Your task to perform on an android device: Show me popular videos on Youtube Image 0: 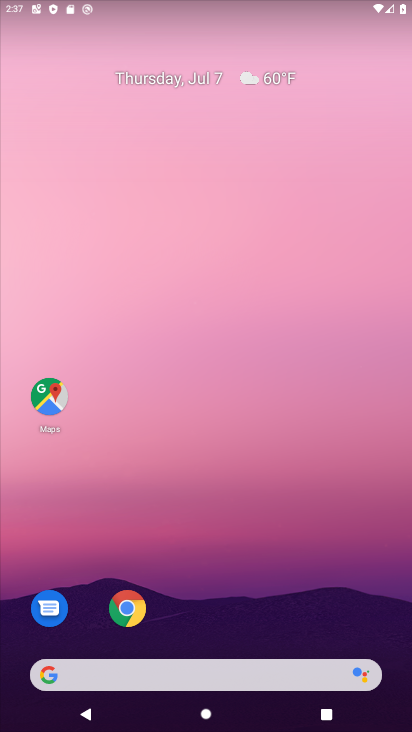
Step 0: press home button
Your task to perform on an android device: Show me popular videos on Youtube Image 1: 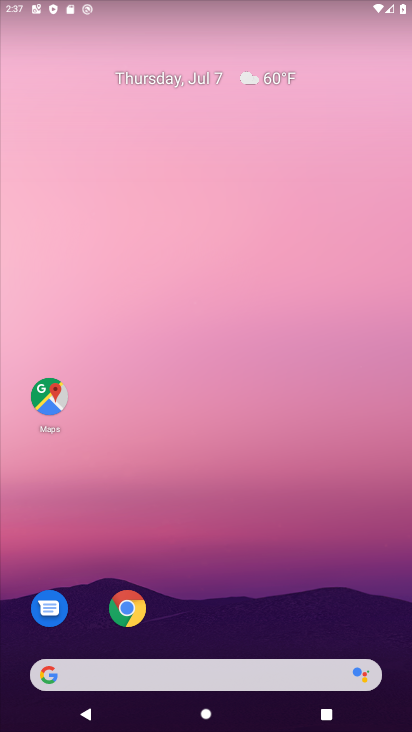
Step 1: drag from (226, 637) to (248, 83)
Your task to perform on an android device: Show me popular videos on Youtube Image 2: 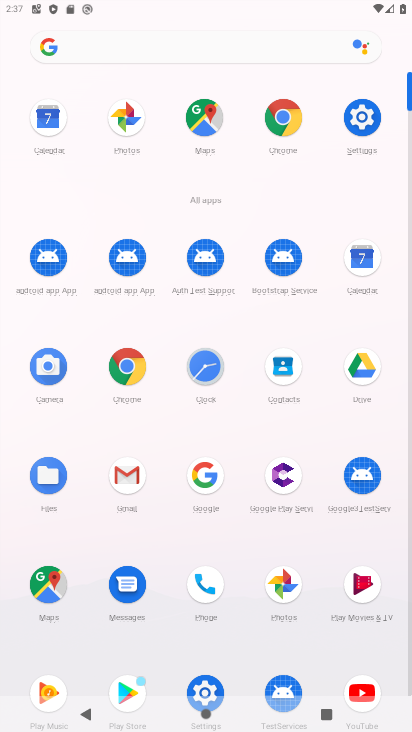
Step 2: click (357, 686)
Your task to perform on an android device: Show me popular videos on Youtube Image 3: 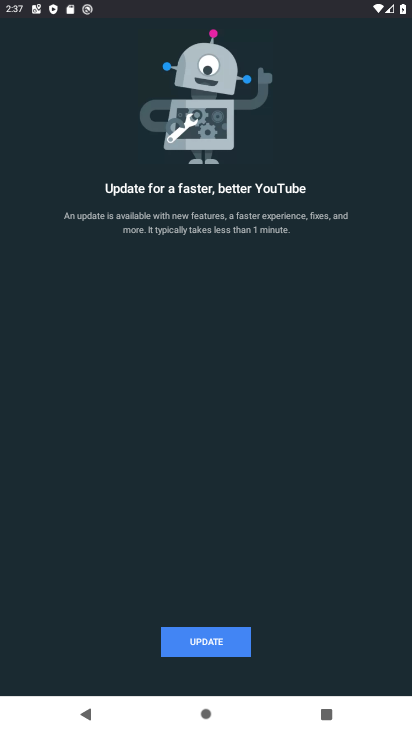
Step 3: click (206, 639)
Your task to perform on an android device: Show me popular videos on Youtube Image 4: 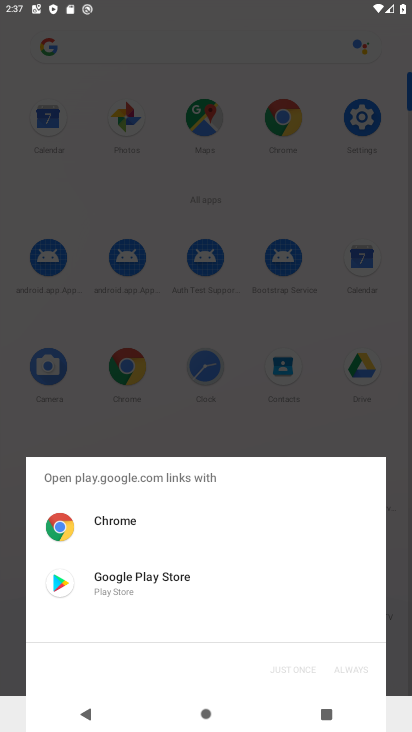
Step 4: click (136, 579)
Your task to perform on an android device: Show me popular videos on Youtube Image 5: 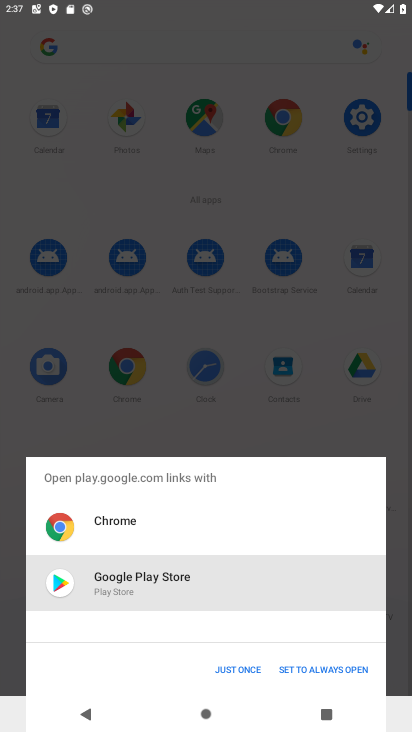
Step 5: click (247, 668)
Your task to perform on an android device: Show me popular videos on Youtube Image 6: 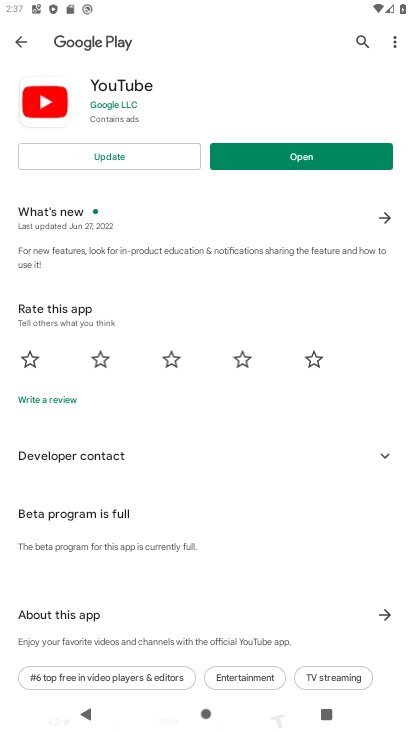
Step 6: click (117, 161)
Your task to perform on an android device: Show me popular videos on Youtube Image 7: 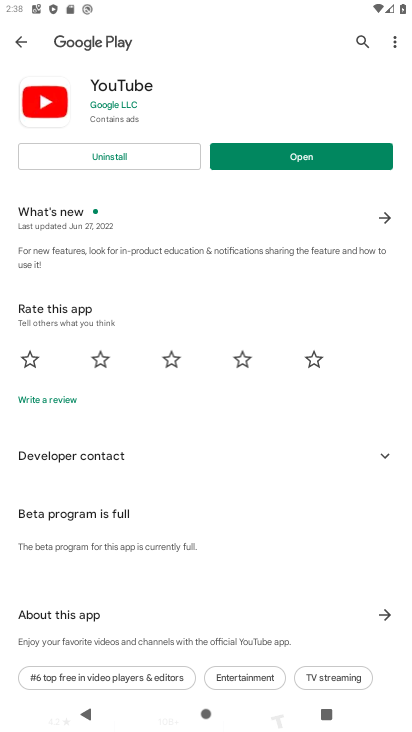
Step 7: click (291, 161)
Your task to perform on an android device: Show me popular videos on Youtube Image 8: 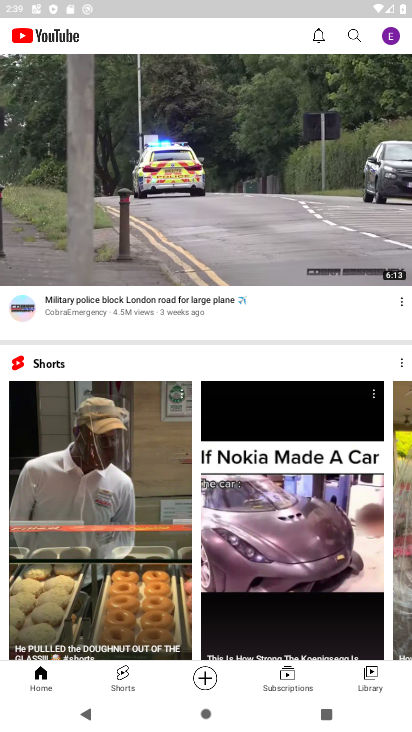
Step 8: click (367, 675)
Your task to perform on an android device: Show me popular videos on Youtube Image 9: 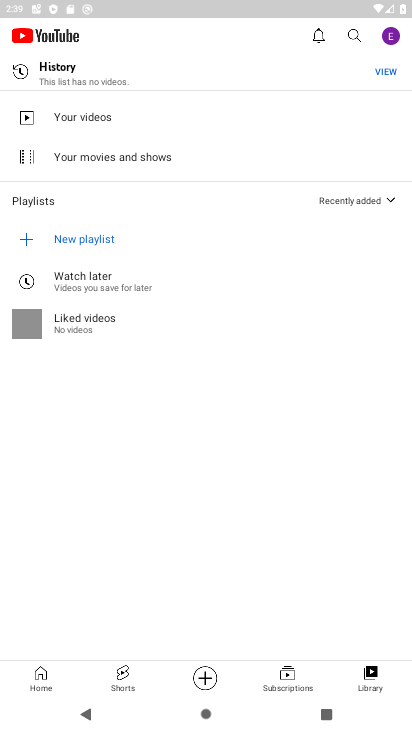
Step 9: click (37, 672)
Your task to perform on an android device: Show me popular videos on Youtube Image 10: 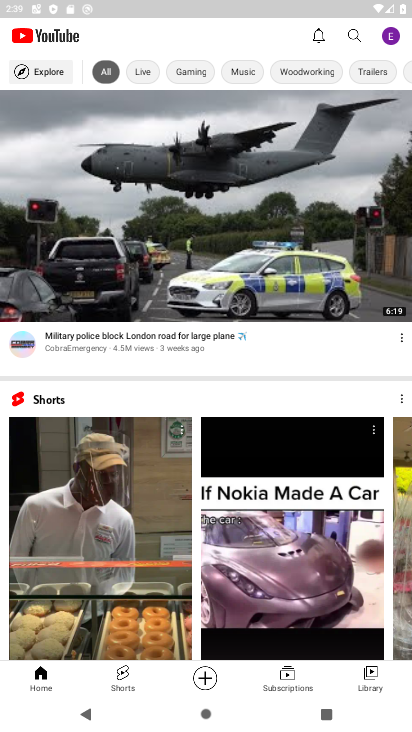
Step 10: click (32, 68)
Your task to perform on an android device: Show me popular videos on Youtube Image 11: 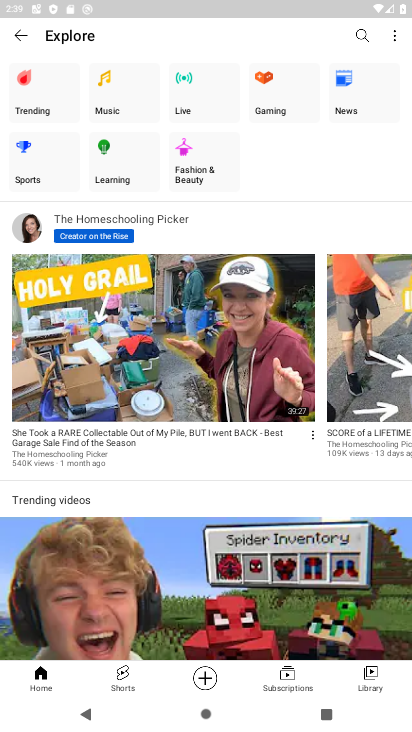
Step 11: click (29, 87)
Your task to perform on an android device: Show me popular videos on Youtube Image 12: 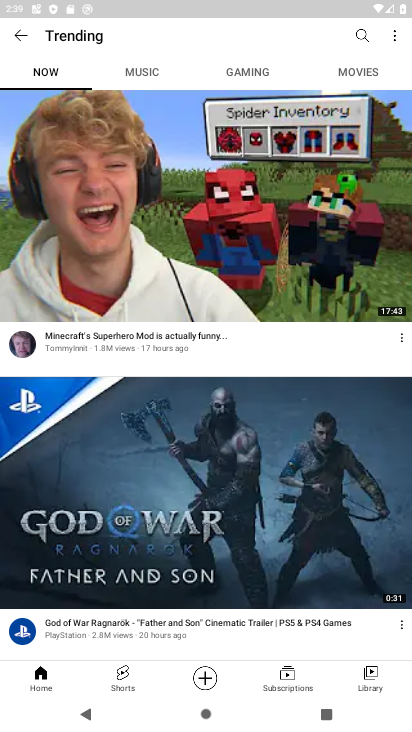
Step 12: task complete